Your task to perform on an android device: add a contact Image 0: 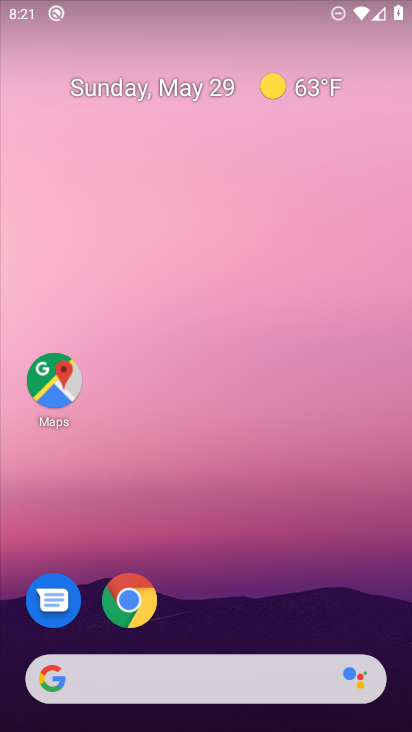
Step 0: drag from (125, 731) to (109, 53)
Your task to perform on an android device: add a contact Image 1: 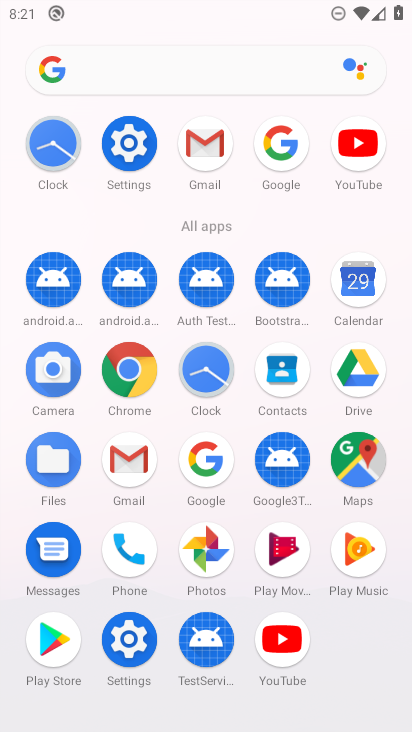
Step 1: click (285, 386)
Your task to perform on an android device: add a contact Image 2: 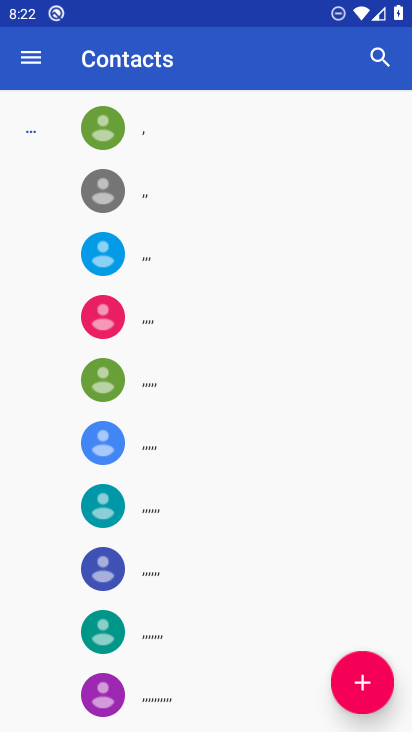
Step 2: click (374, 682)
Your task to perform on an android device: add a contact Image 3: 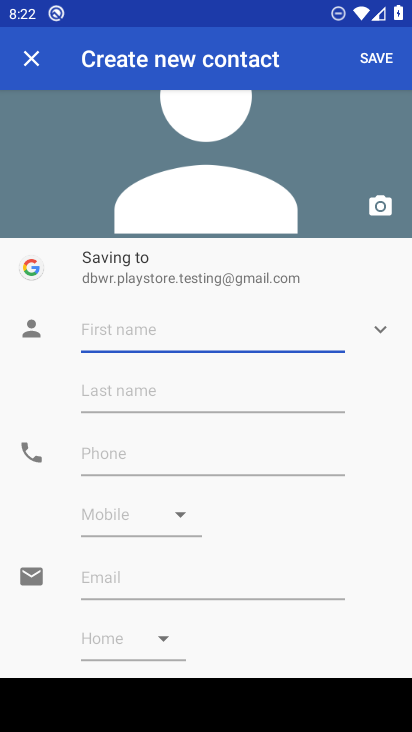
Step 3: click (169, 326)
Your task to perform on an android device: add a contact Image 4: 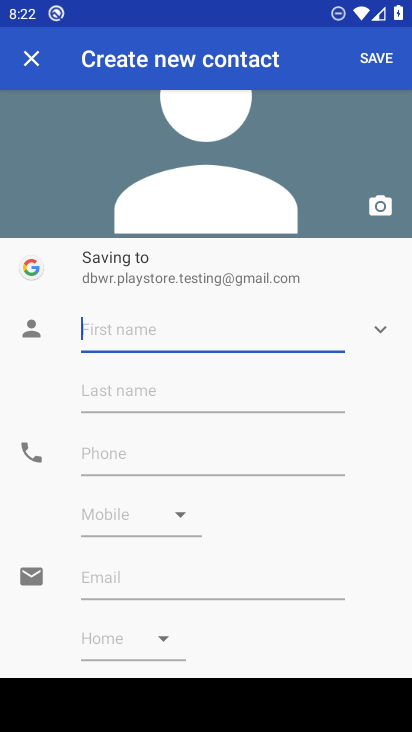
Step 4: type "Abhsj"
Your task to perform on an android device: add a contact Image 5: 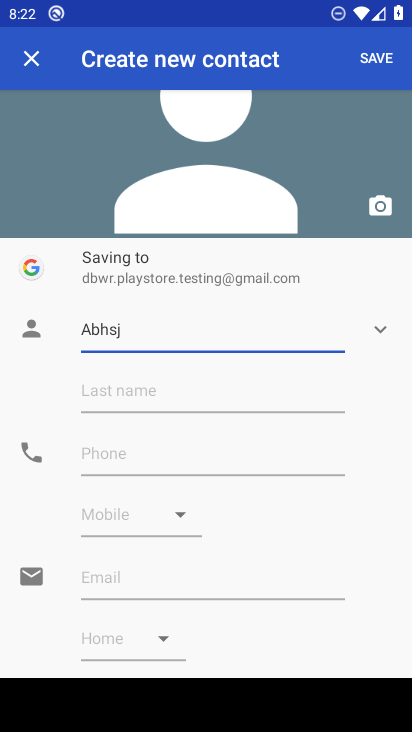
Step 5: click (306, 452)
Your task to perform on an android device: add a contact Image 6: 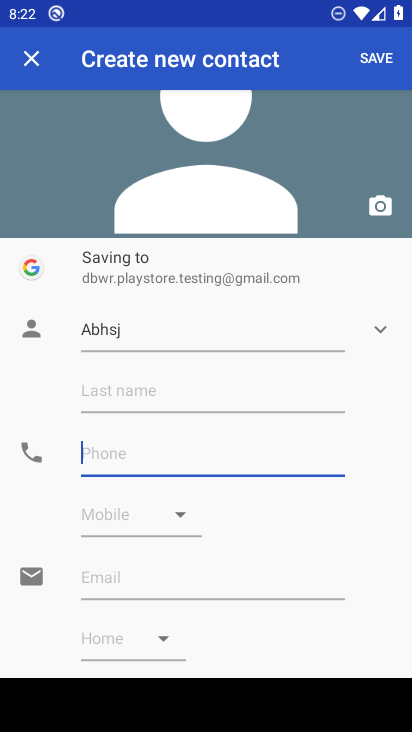
Step 6: click (303, 454)
Your task to perform on an android device: add a contact Image 7: 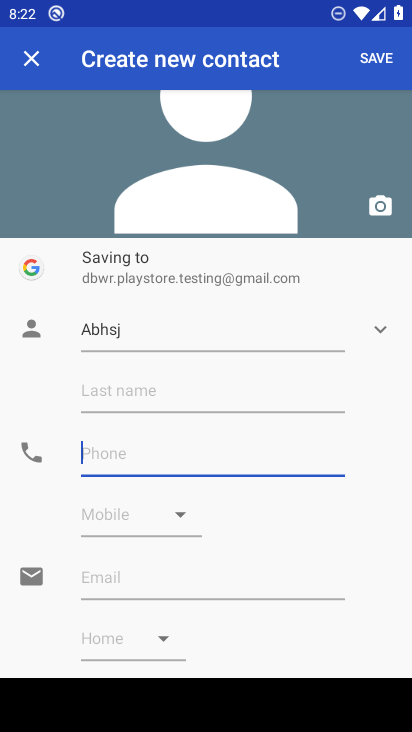
Step 7: type "98"
Your task to perform on an android device: add a contact Image 8: 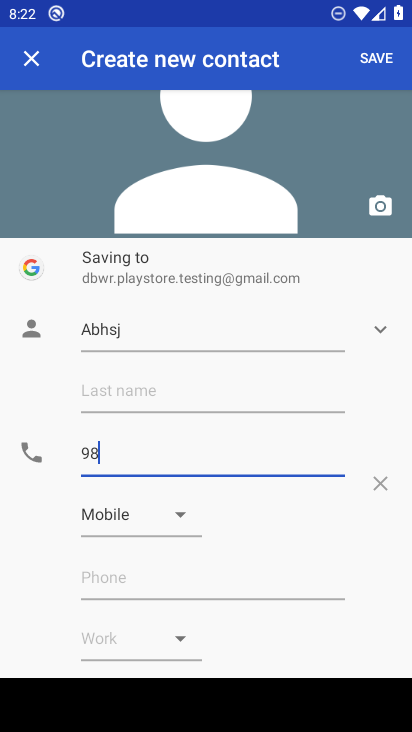
Step 8: type "17728718"
Your task to perform on an android device: add a contact Image 9: 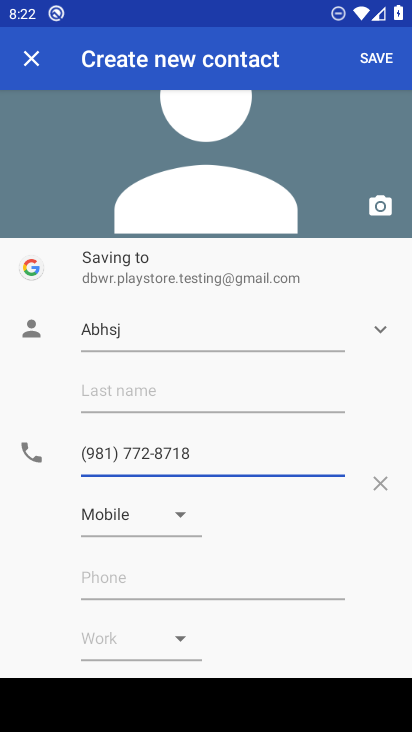
Step 9: drag from (334, 624) to (325, 290)
Your task to perform on an android device: add a contact Image 10: 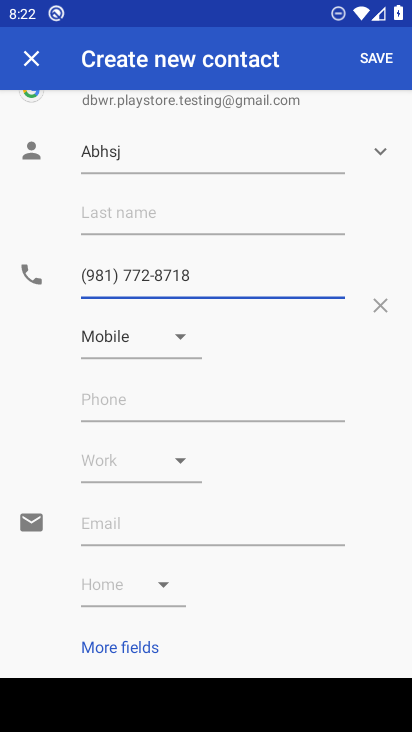
Step 10: click (364, 53)
Your task to perform on an android device: add a contact Image 11: 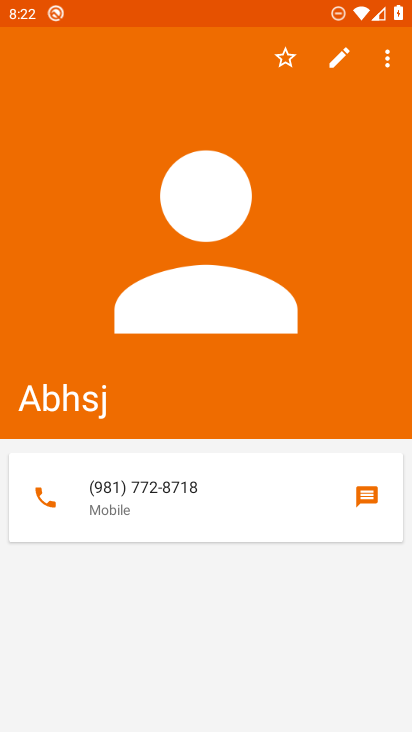
Step 11: task complete